Your task to perform on an android device: Open network settings Image 0: 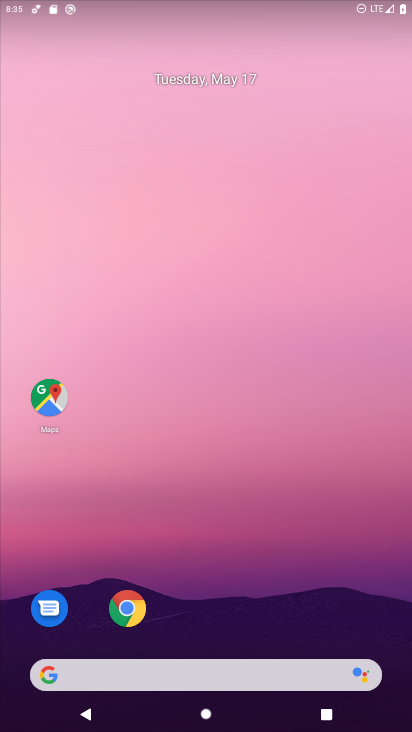
Step 0: drag from (204, 632) to (253, 85)
Your task to perform on an android device: Open network settings Image 1: 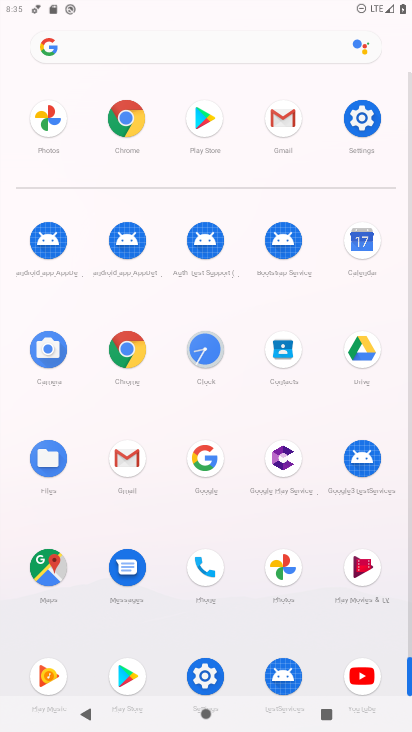
Step 1: click (200, 676)
Your task to perform on an android device: Open network settings Image 2: 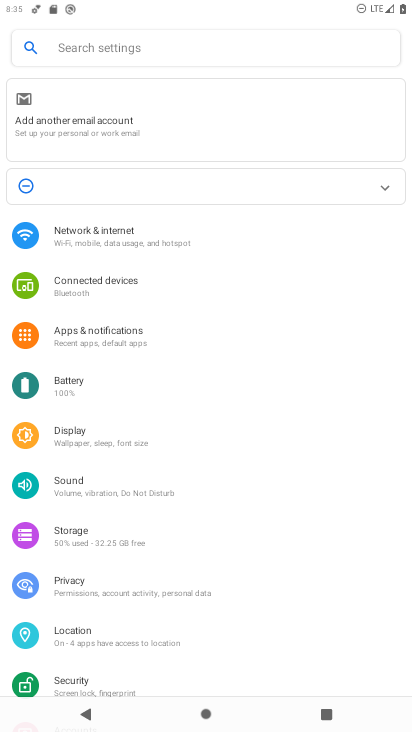
Step 2: click (147, 249)
Your task to perform on an android device: Open network settings Image 3: 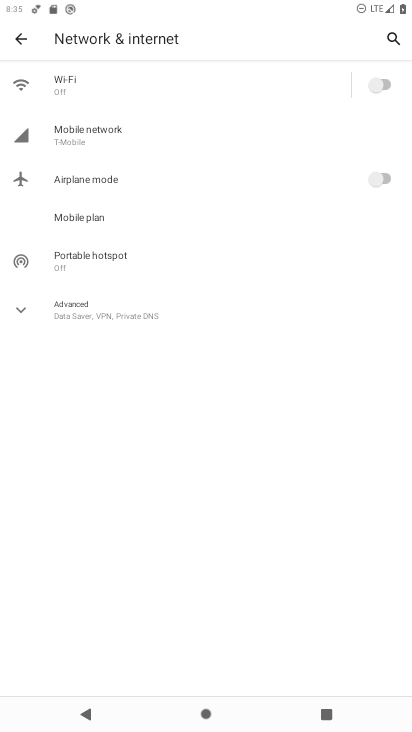
Step 3: task complete